Your task to perform on an android device: Open the Play Movies app and select the watchlist tab. Image 0: 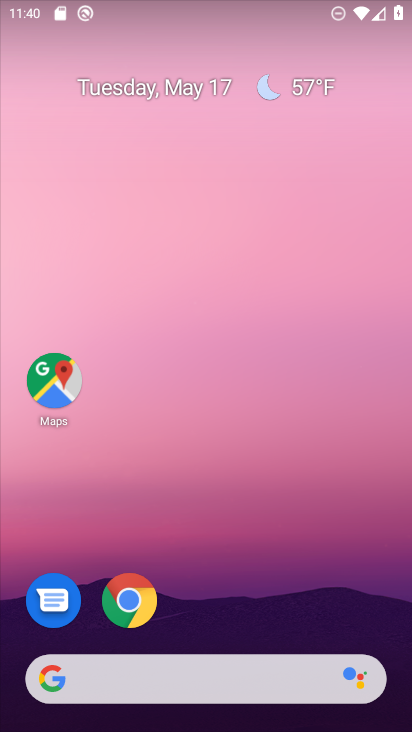
Step 0: drag from (292, 530) to (212, 117)
Your task to perform on an android device: Open the Play Movies app and select the watchlist tab. Image 1: 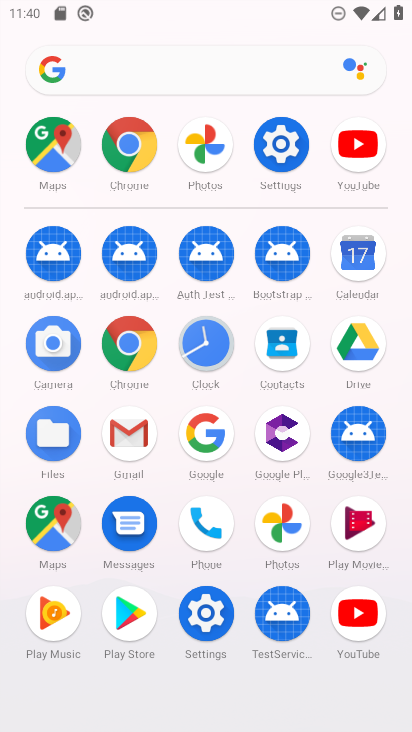
Step 1: click (355, 628)
Your task to perform on an android device: Open the Play Movies app and select the watchlist tab. Image 2: 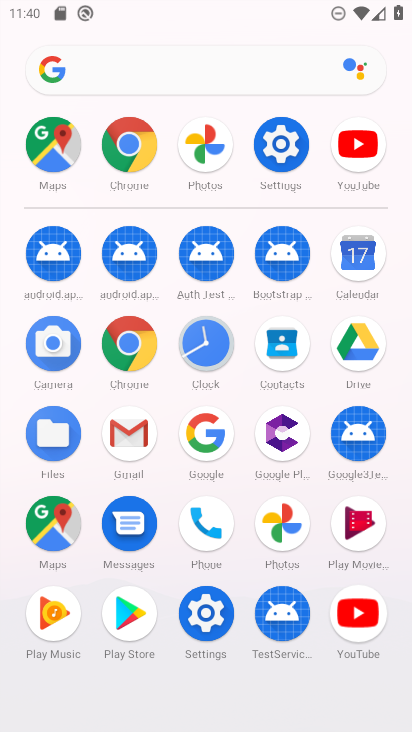
Step 2: click (355, 628)
Your task to perform on an android device: Open the Play Movies app and select the watchlist tab. Image 3: 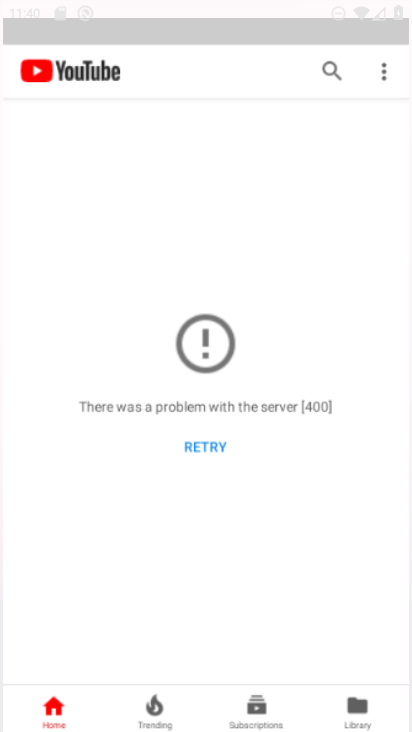
Step 3: click (356, 625)
Your task to perform on an android device: Open the Play Movies app and select the watchlist tab. Image 4: 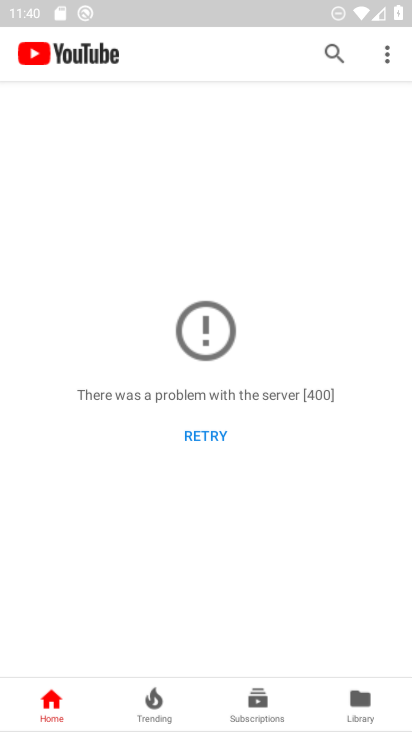
Step 4: click (358, 622)
Your task to perform on an android device: Open the Play Movies app and select the watchlist tab. Image 5: 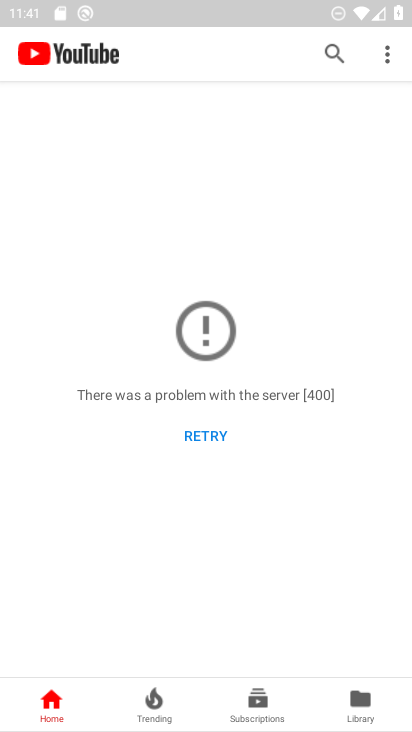
Step 5: task complete